Your task to perform on an android device: Open the Play Movies app and select the watchlist tab. Image 0: 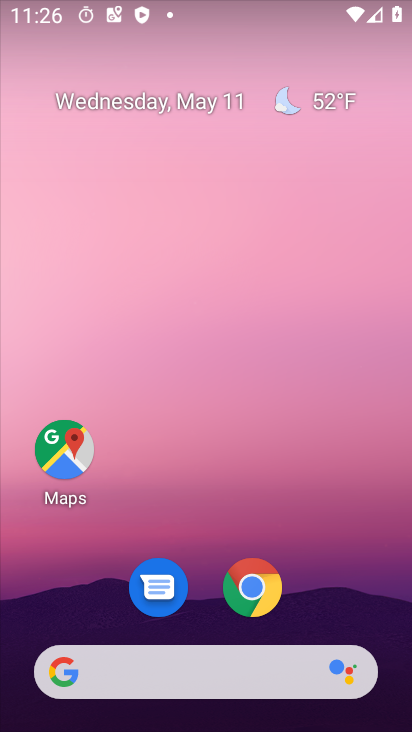
Step 0: drag from (190, 703) to (240, 333)
Your task to perform on an android device: Open the Play Movies app and select the watchlist tab. Image 1: 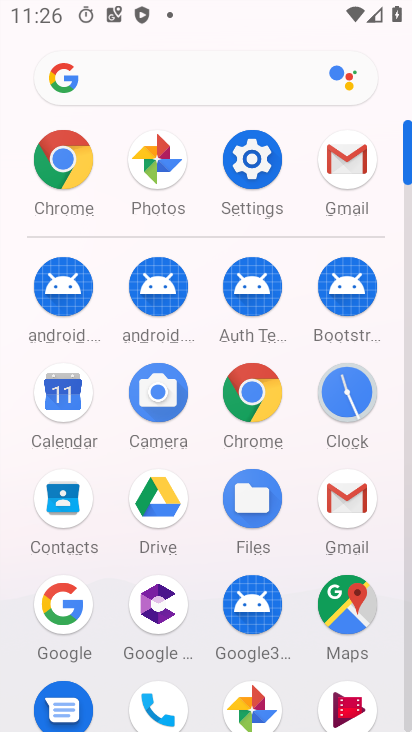
Step 1: click (344, 696)
Your task to perform on an android device: Open the Play Movies app and select the watchlist tab. Image 2: 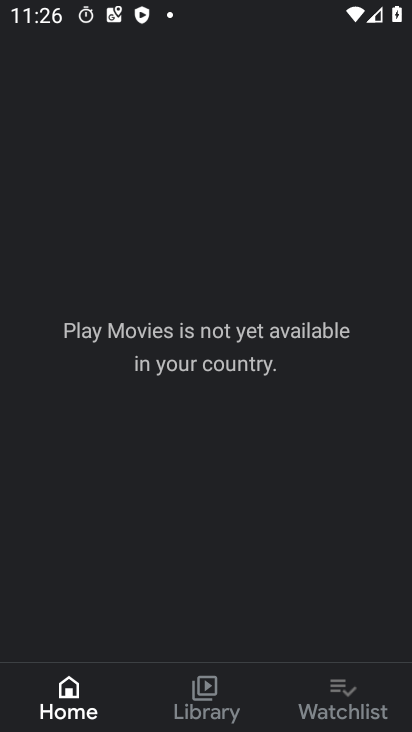
Step 2: click (321, 693)
Your task to perform on an android device: Open the Play Movies app and select the watchlist tab. Image 3: 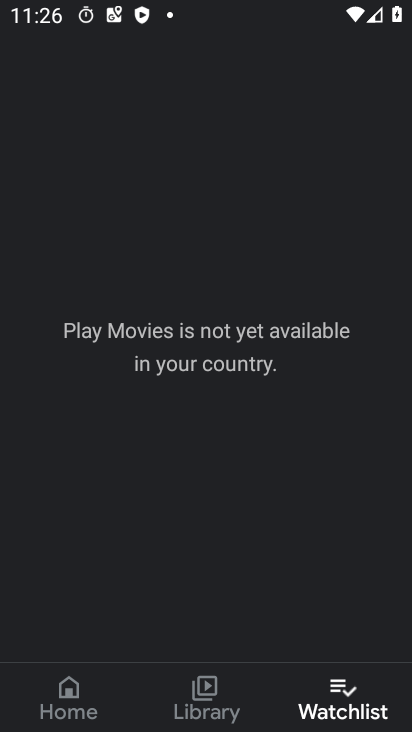
Step 3: task complete